Your task to perform on an android device: open app "Life360: Find Family & Friends" Image 0: 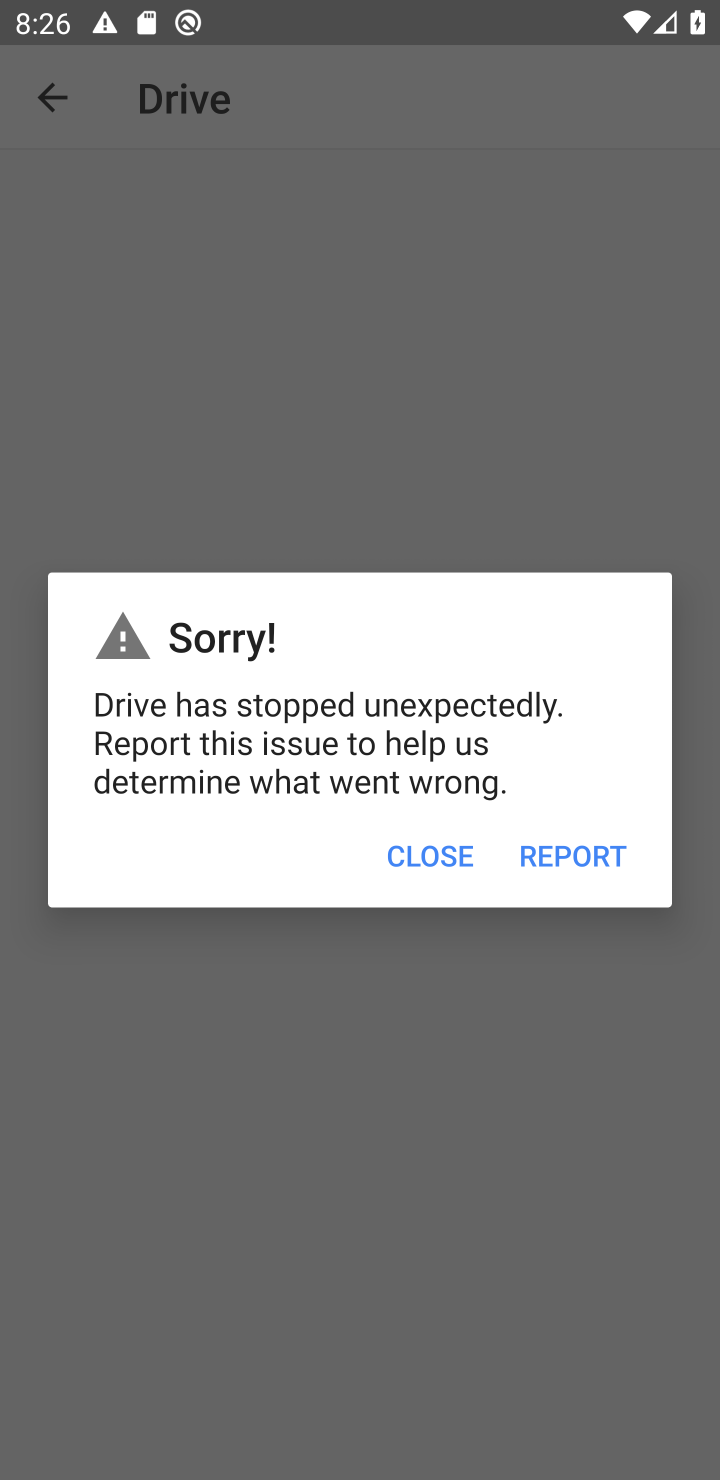
Step 0: press home button
Your task to perform on an android device: open app "Life360: Find Family & Friends" Image 1: 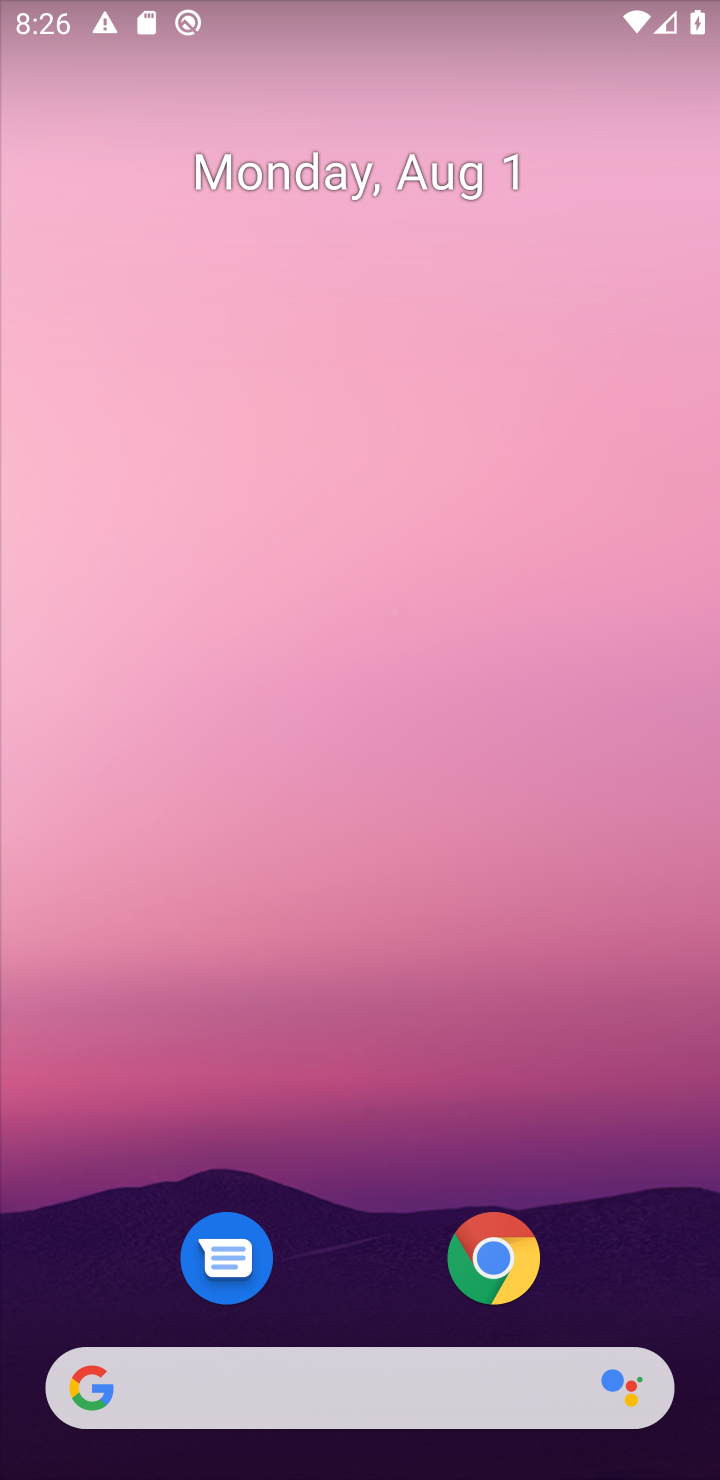
Step 1: drag from (378, 1236) to (232, 81)
Your task to perform on an android device: open app "Life360: Find Family & Friends" Image 2: 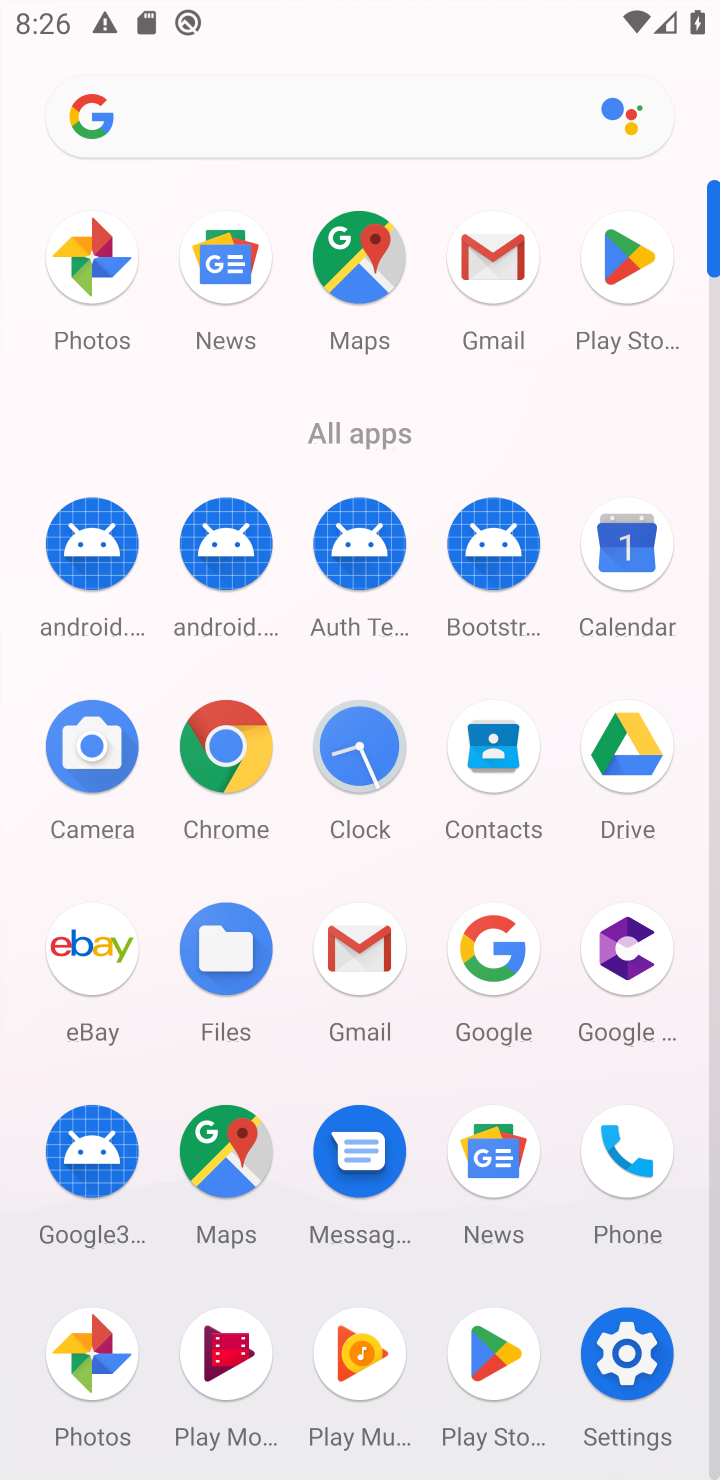
Step 2: click (479, 1353)
Your task to perform on an android device: open app "Life360: Find Family & Friends" Image 3: 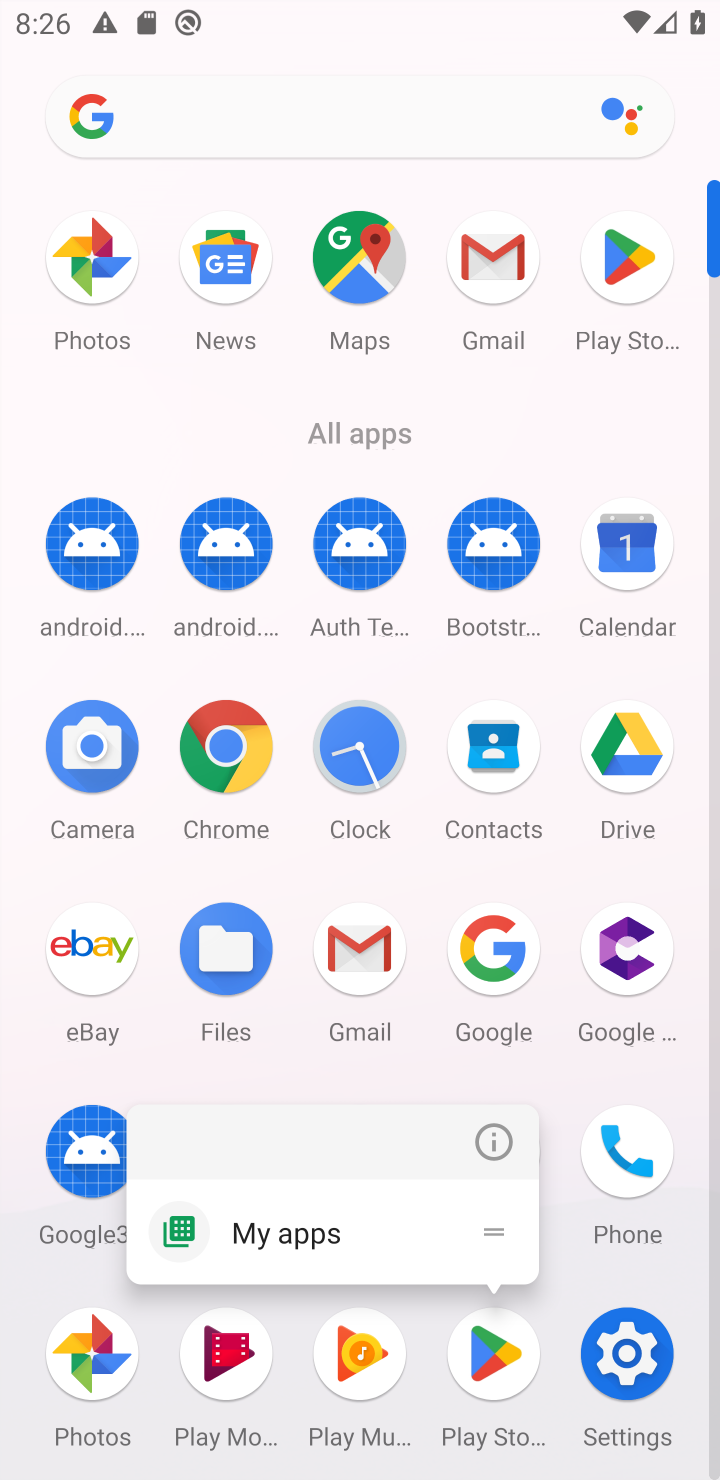
Step 3: click (477, 1362)
Your task to perform on an android device: open app "Life360: Find Family & Friends" Image 4: 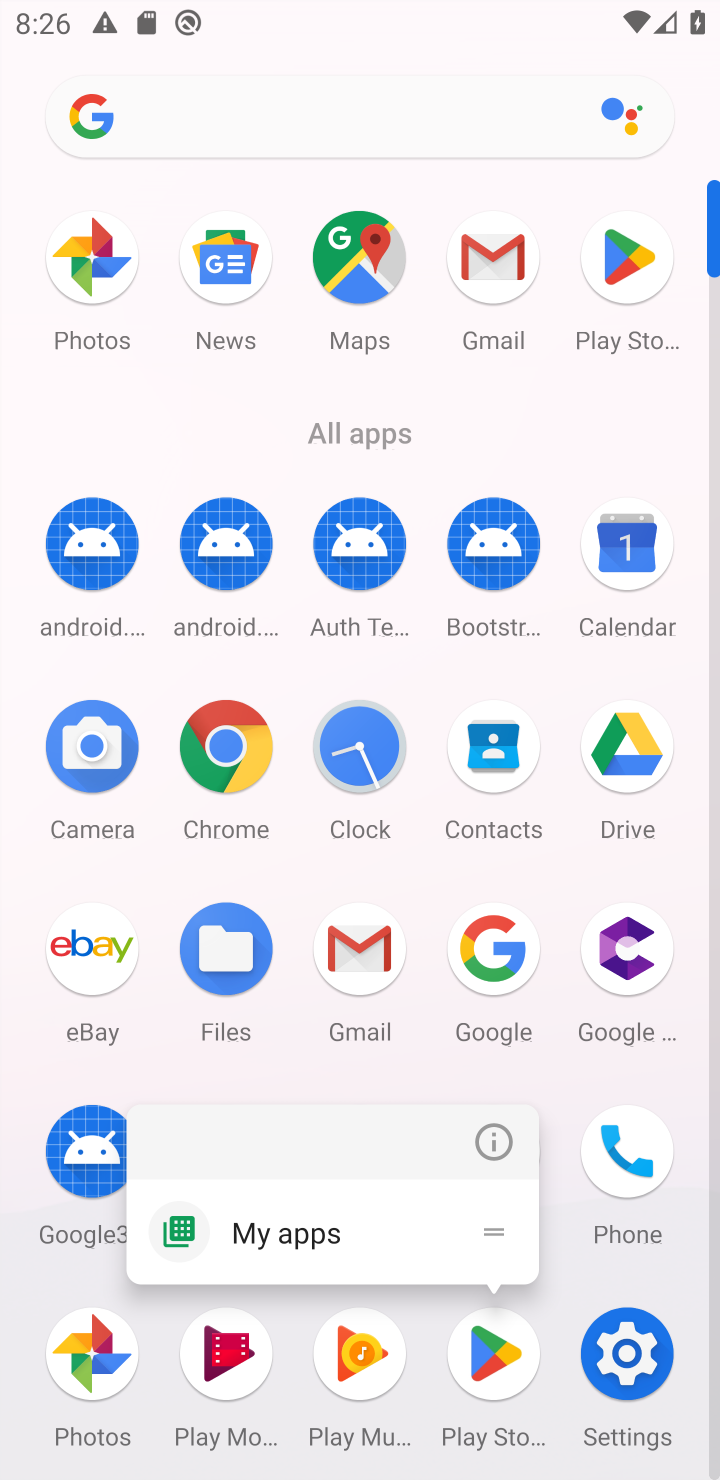
Step 4: click (477, 1362)
Your task to perform on an android device: open app "Life360: Find Family & Friends" Image 5: 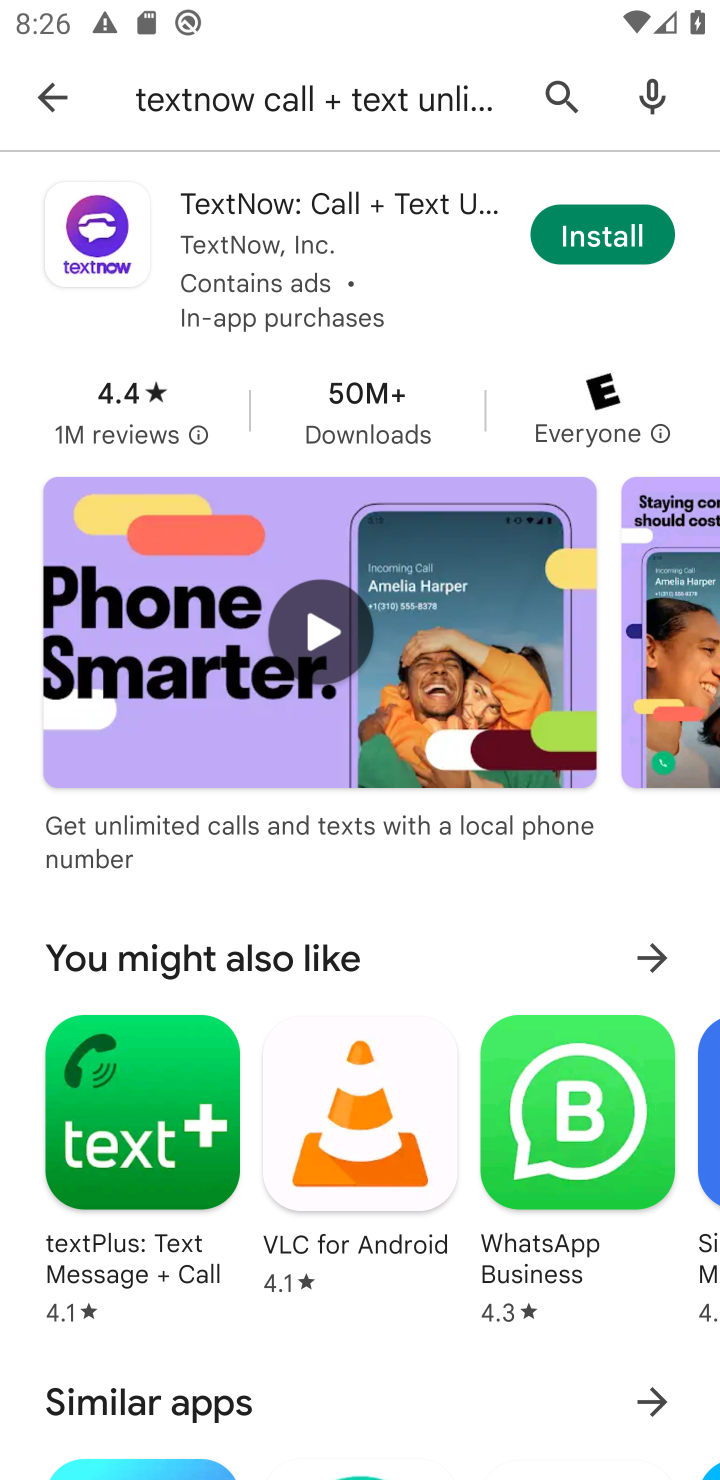
Step 5: click (477, 1362)
Your task to perform on an android device: open app "Life360: Find Family & Friends" Image 6: 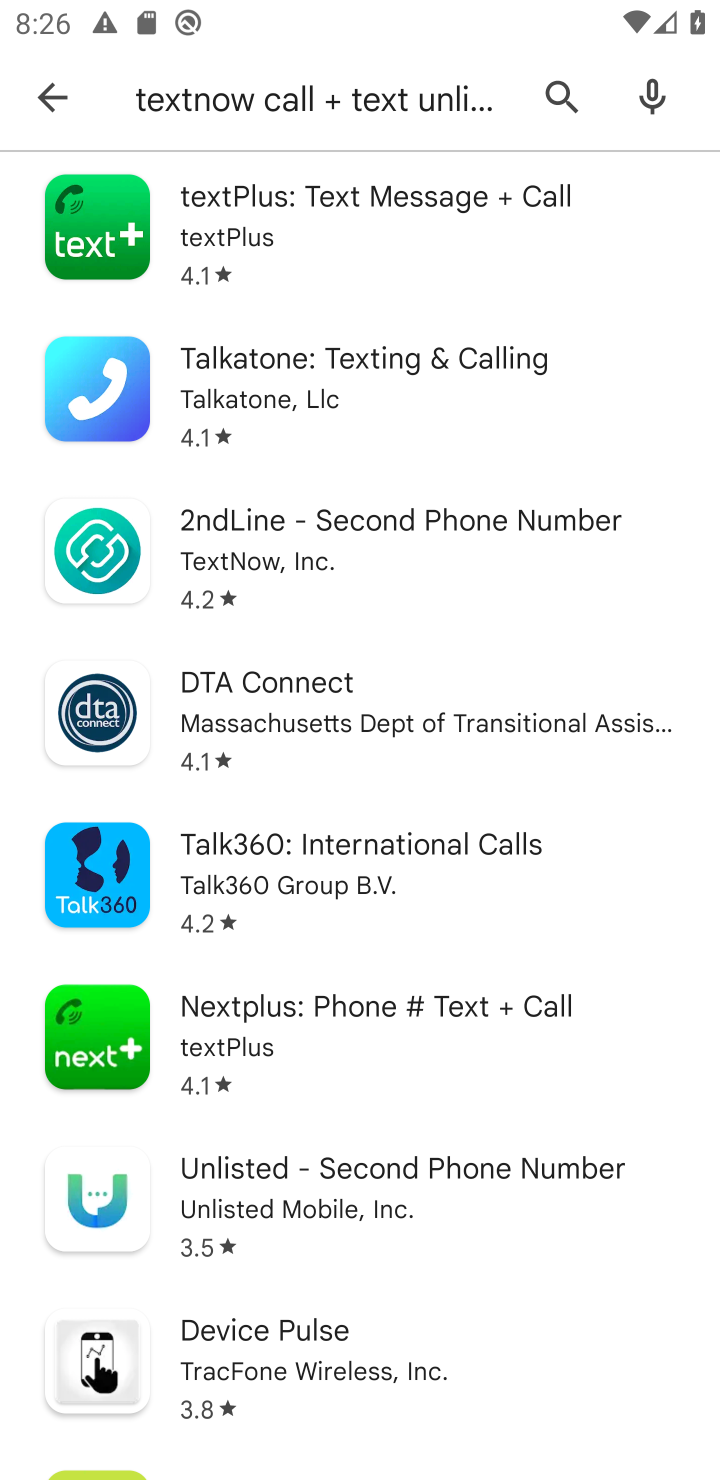
Step 6: click (544, 97)
Your task to perform on an android device: open app "Life360: Find Family & Friends" Image 7: 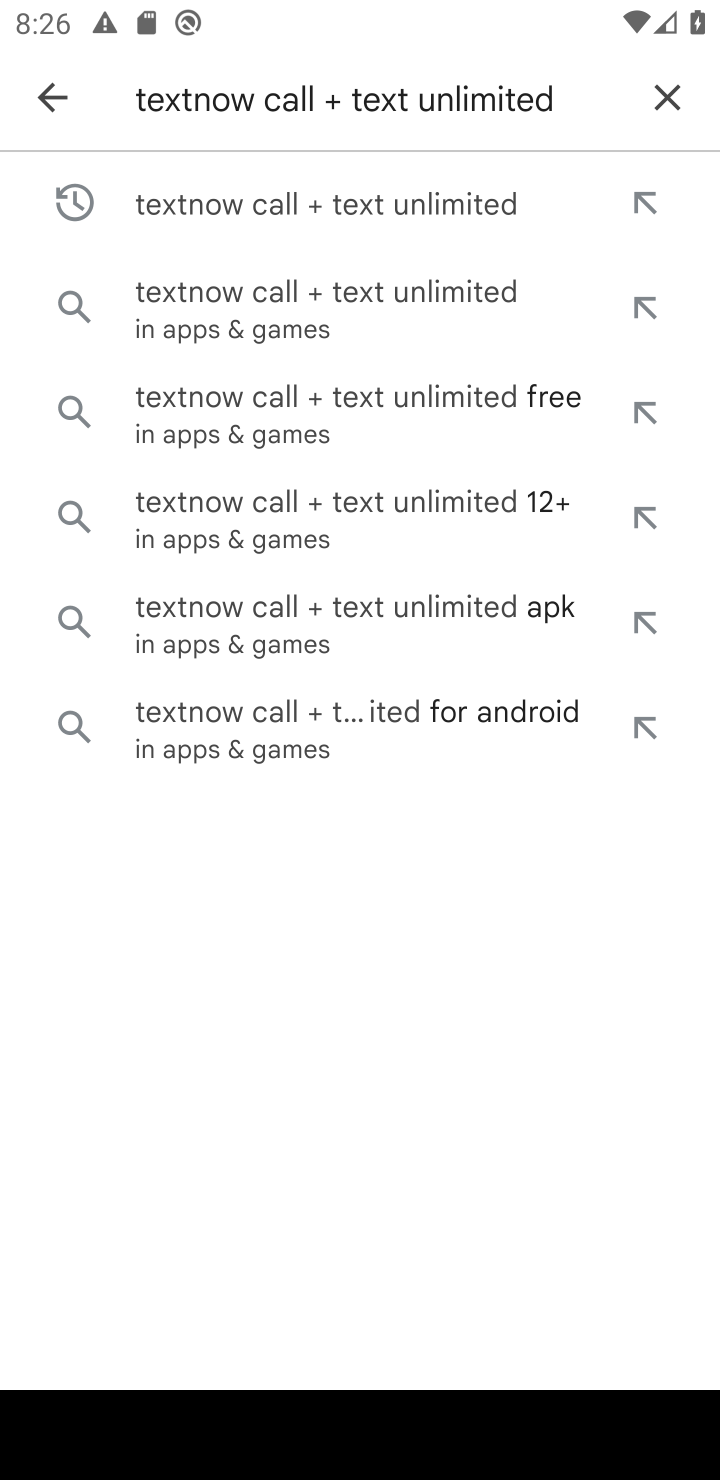
Step 7: click (665, 86)
Your task to perform on an android device: open app "Life360: Find Family & Friends" Image 8: 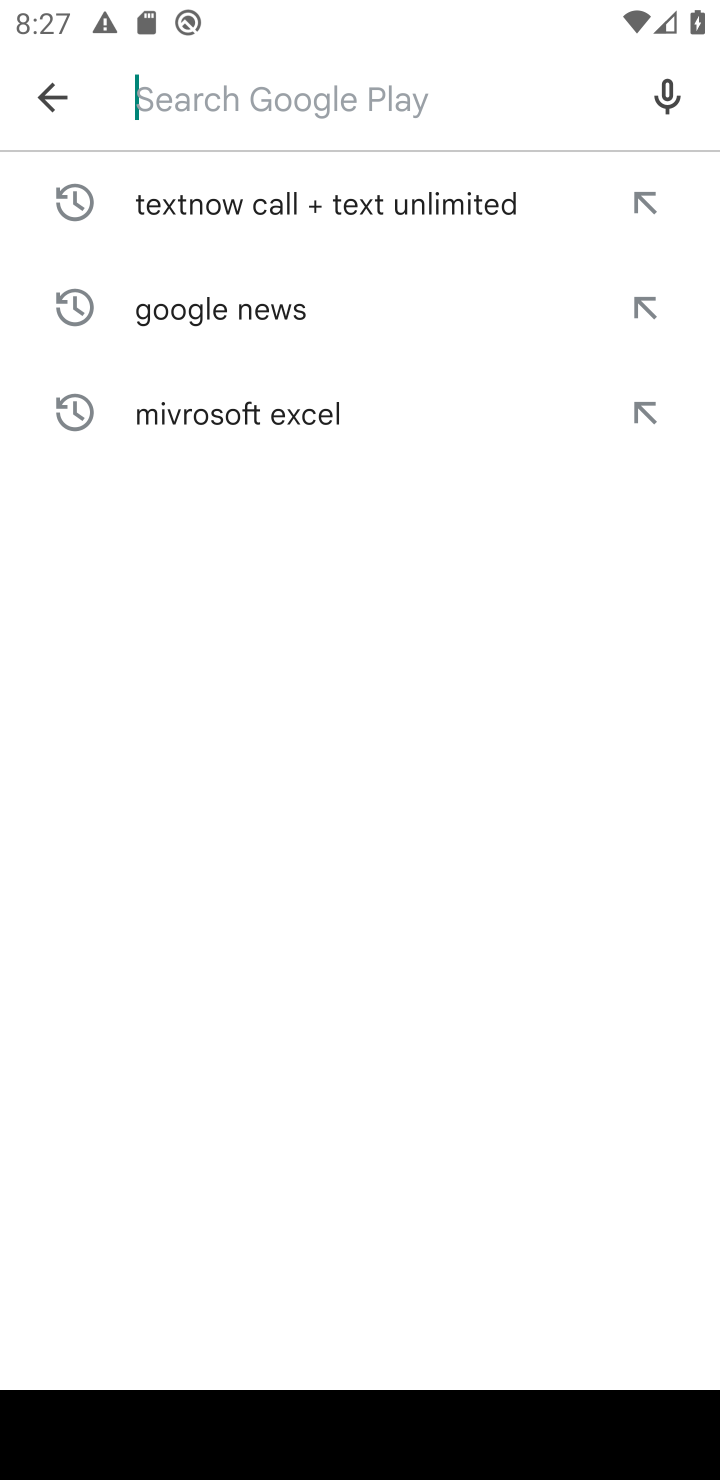
Step 8: type "Life360: Find Family & Friends""
Your task to perform on an android device: open app "Life360: Find Family & Friends" Image 9: 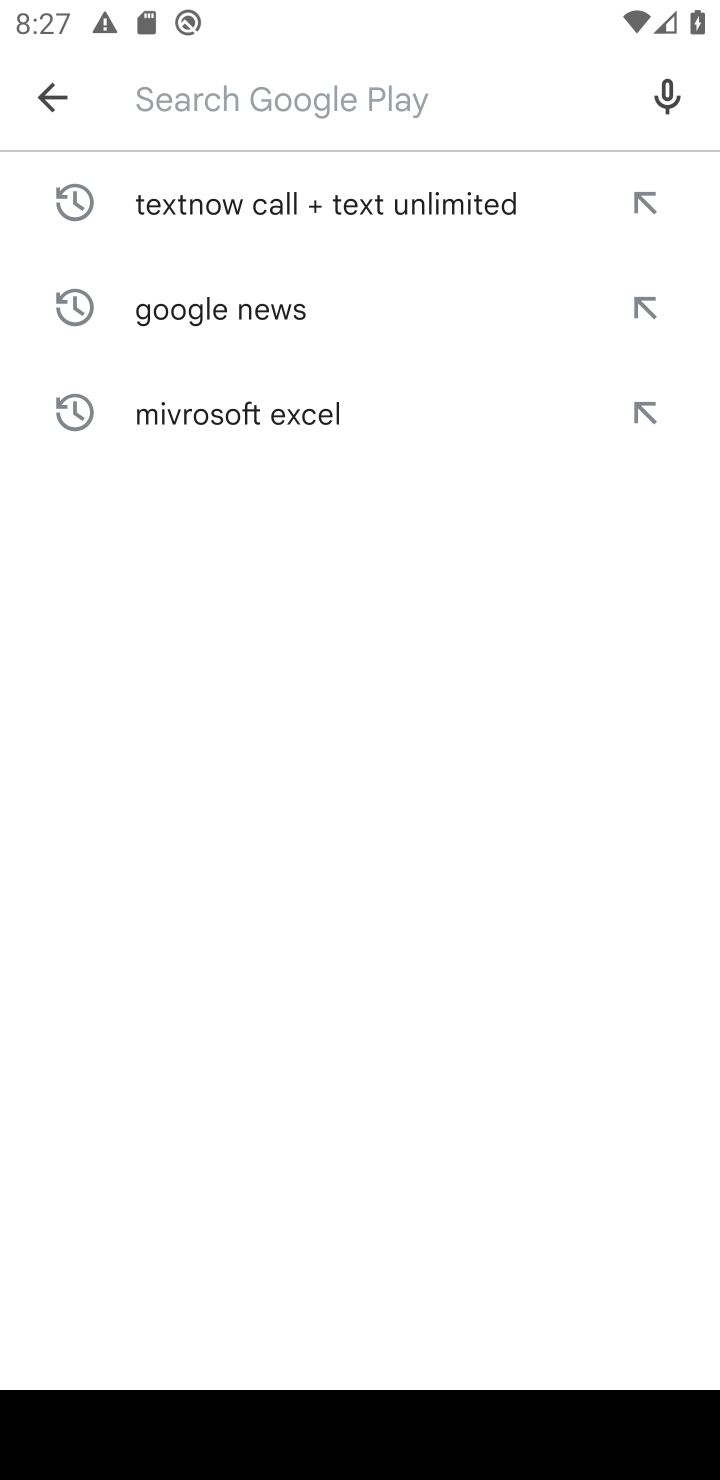
Step 9: type ""
Your task to perform on an android device: open app "Life360: Find Family & Friends" Image 10: 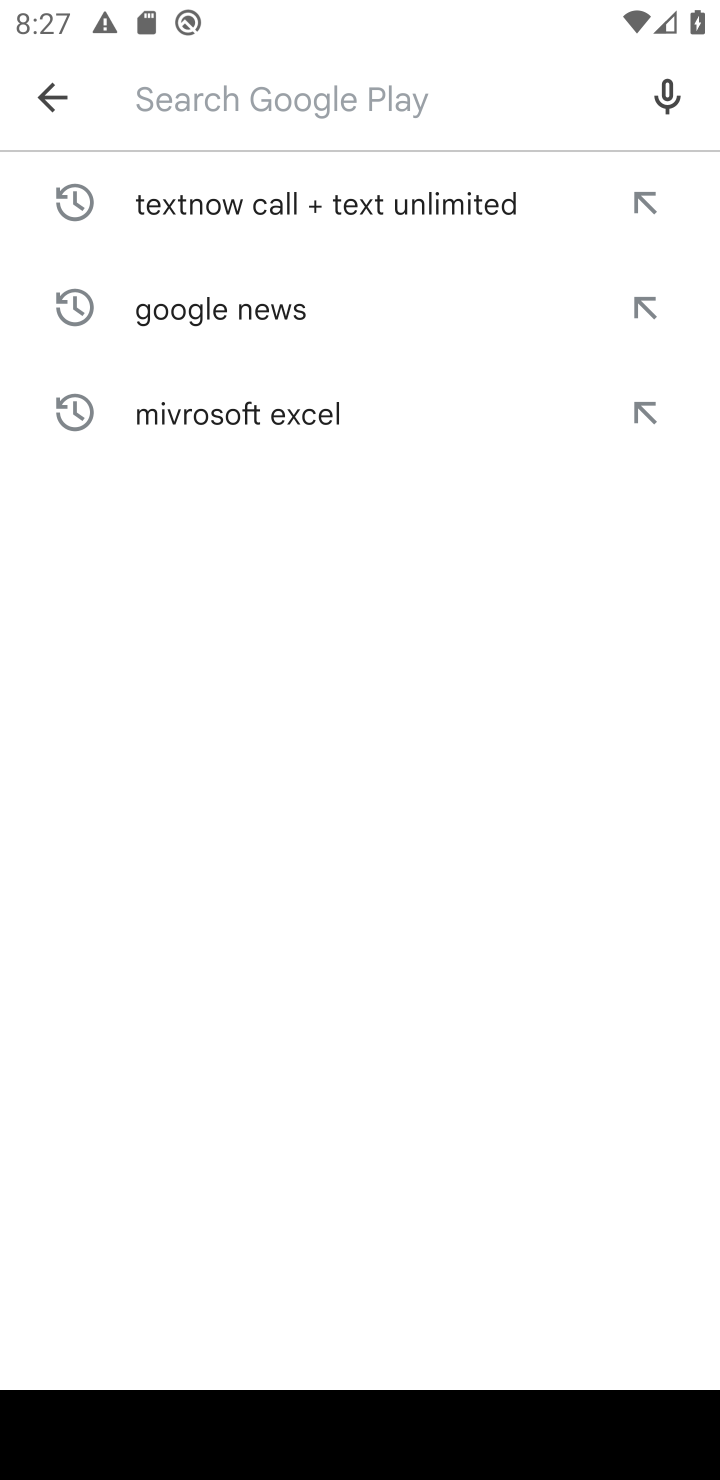
Step 10: click (476, 205)
Your task to perform on an android device: open app "Life360: Find Family & Friends" Image 11: 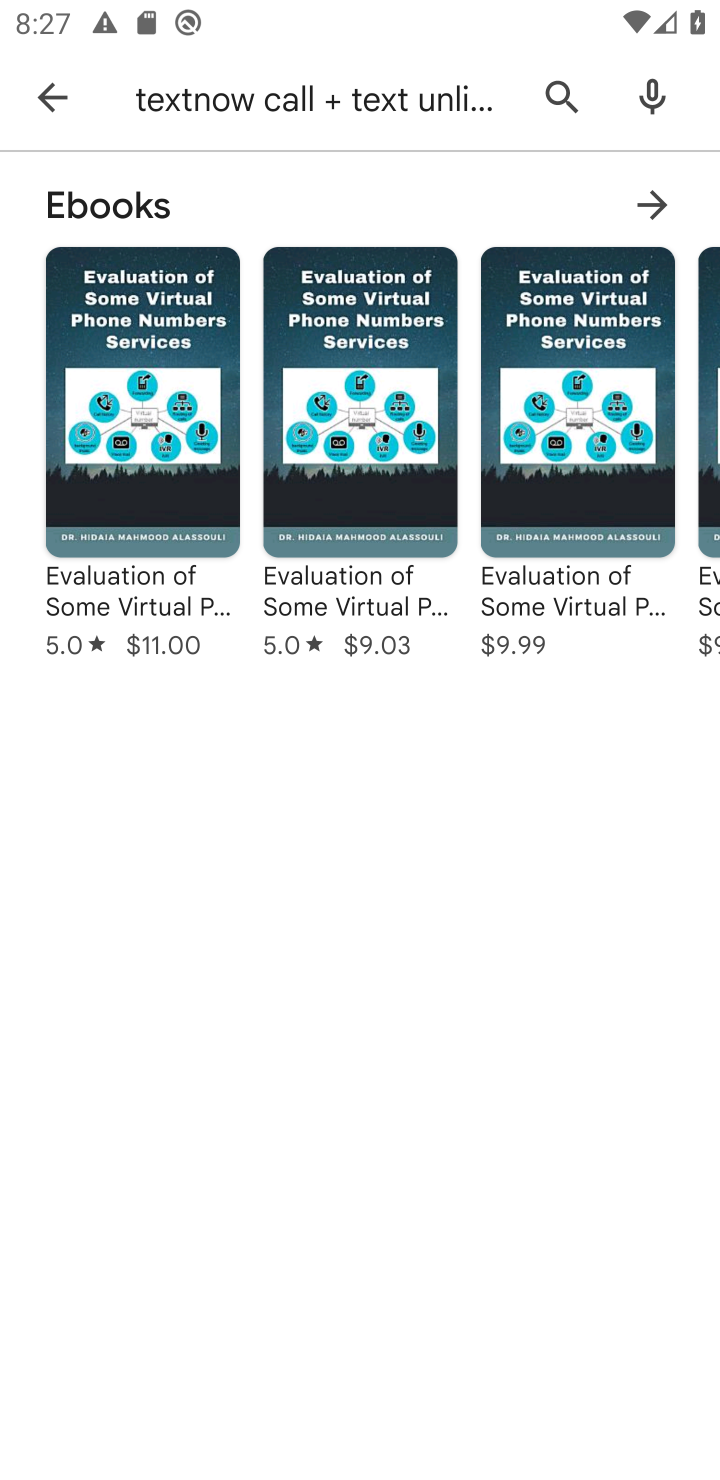
Step 11: click (32, 95)
Your task to perform on an android device: open app "Life360: Find Family & Friends" Image 12: 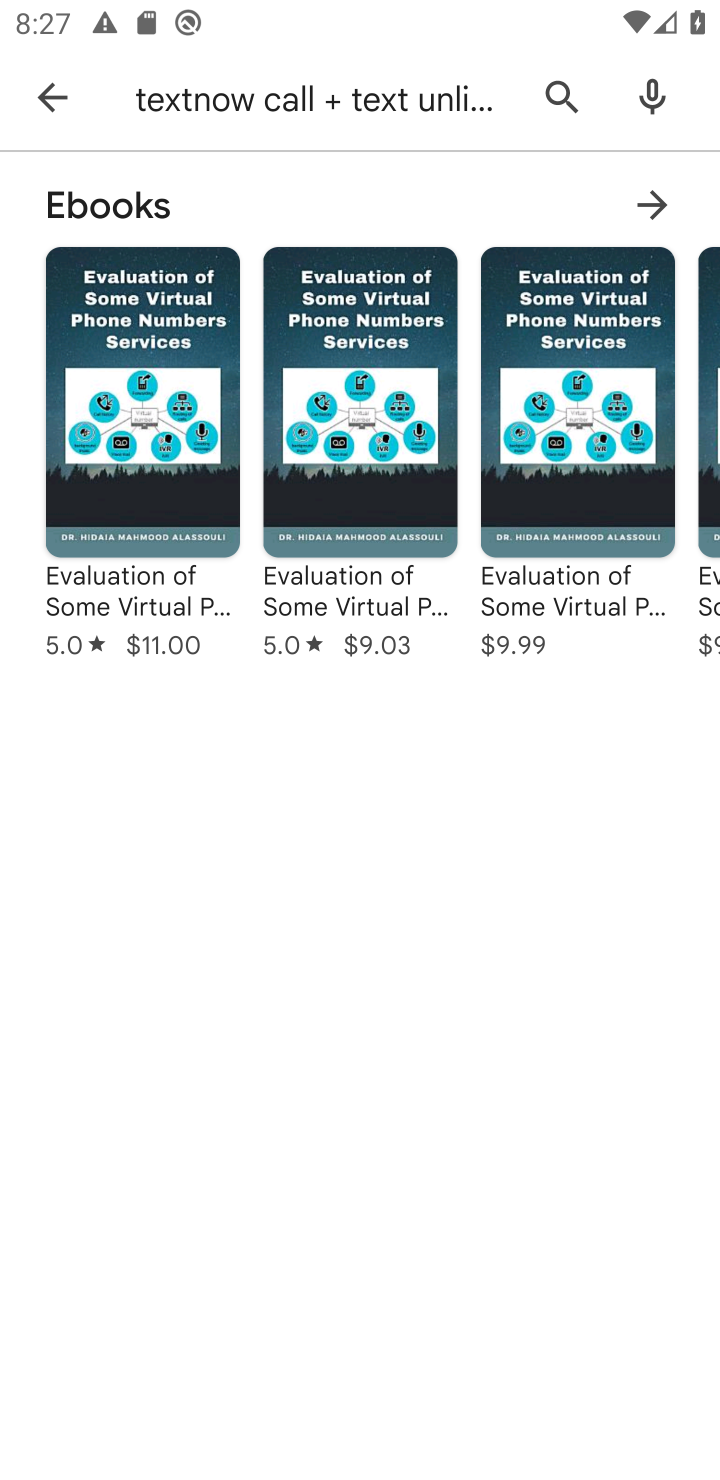
Step 12: click (37, 102)
Your task to perform on an android device: open app "Life360: Find Family & Friends" Image 13: 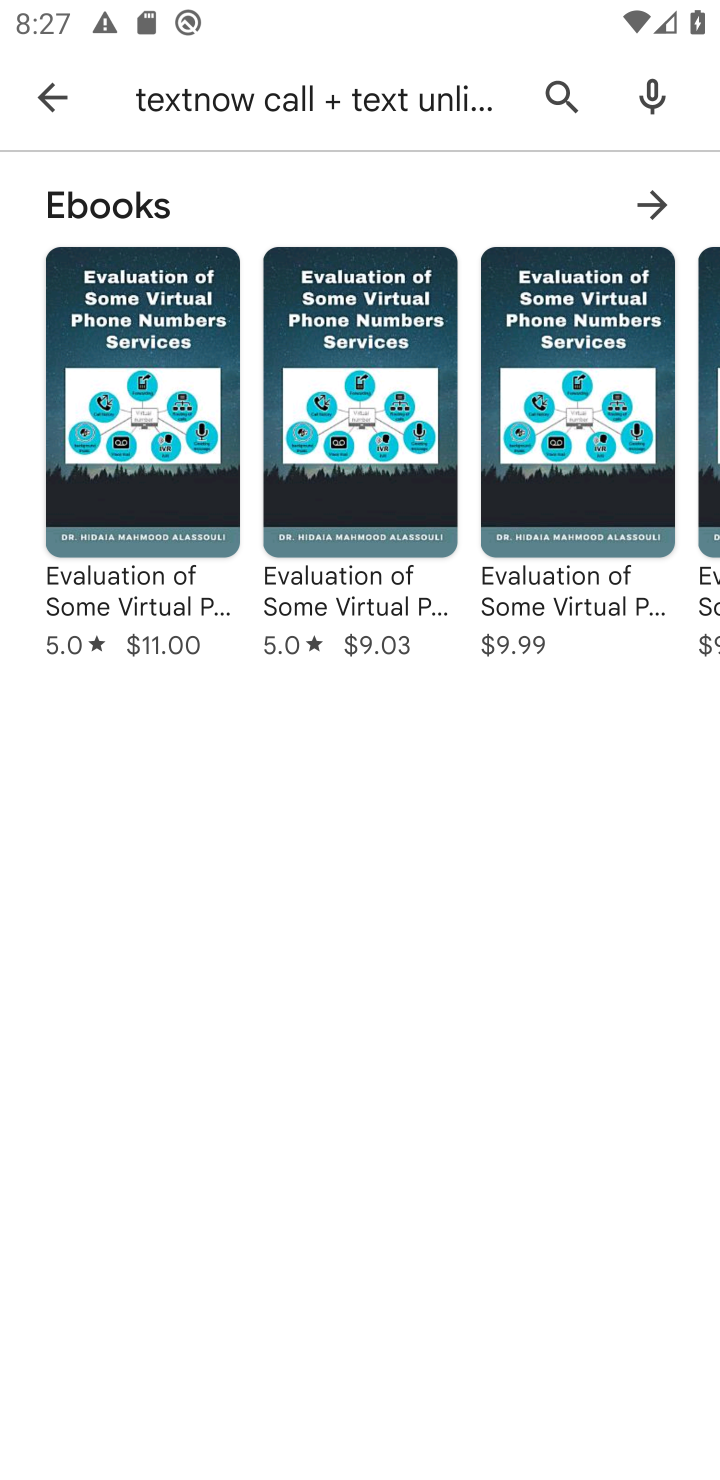
Step 13: click (39, 112)
Your task to perform on an android device: open app "Life360: Find Family & Friends" Image 14: 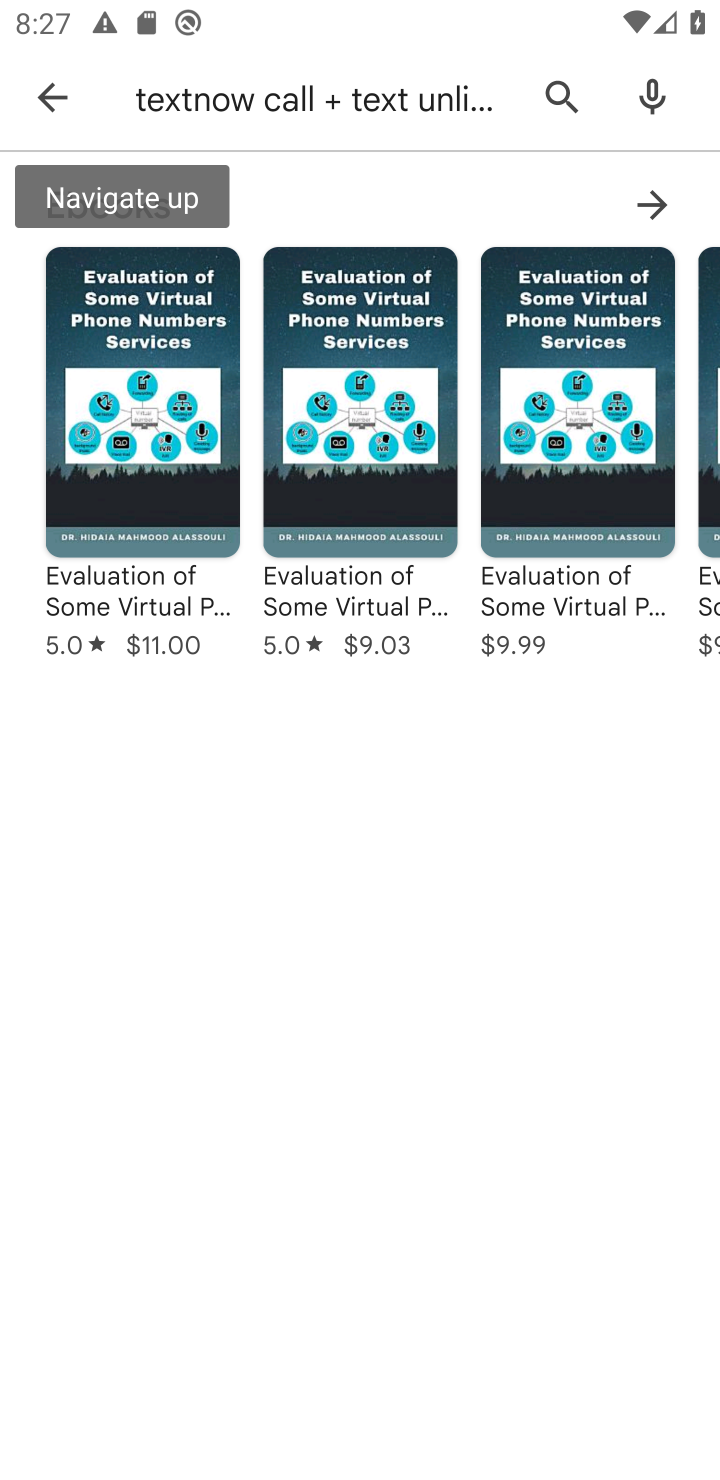
Step 14: click (45, 98)
Your task to perform on an android device: open app "Life360: Find Family & Friends" Image 15: 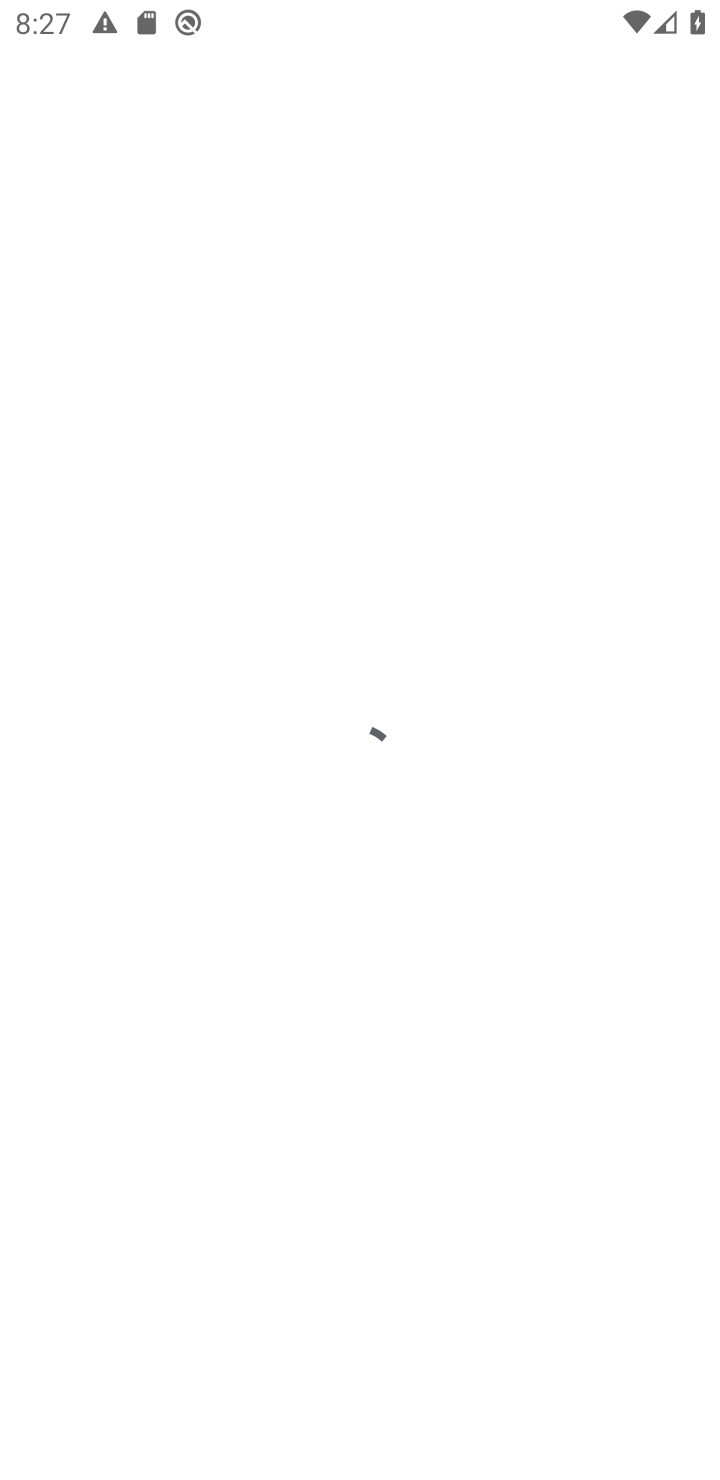
Step 15: click (563, 98)
Your task to perform on an android device: open app "Life360: Find Family & Friends" Image 16: 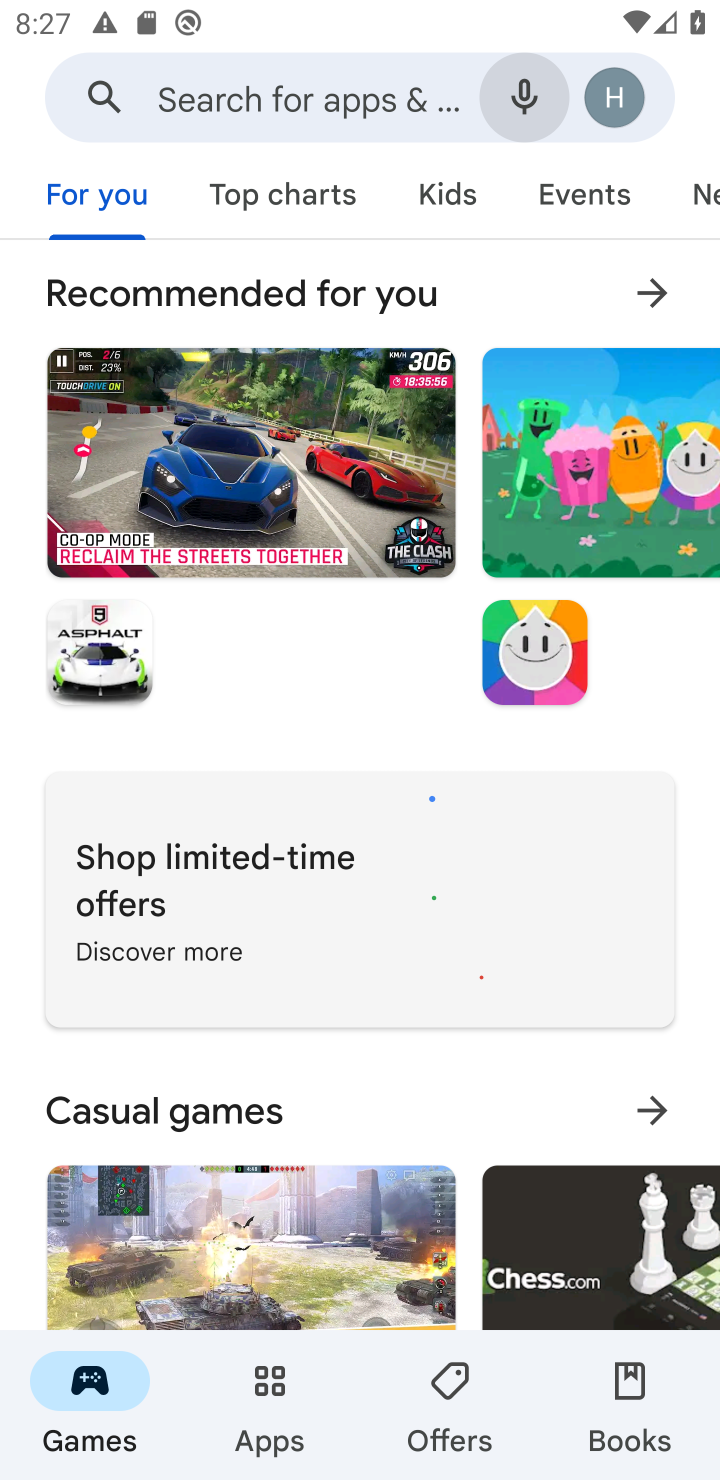
Step 16: click (220, 89)
Your task to perform on an android device: open app "Life360: Find Family & Friends" Image 17: 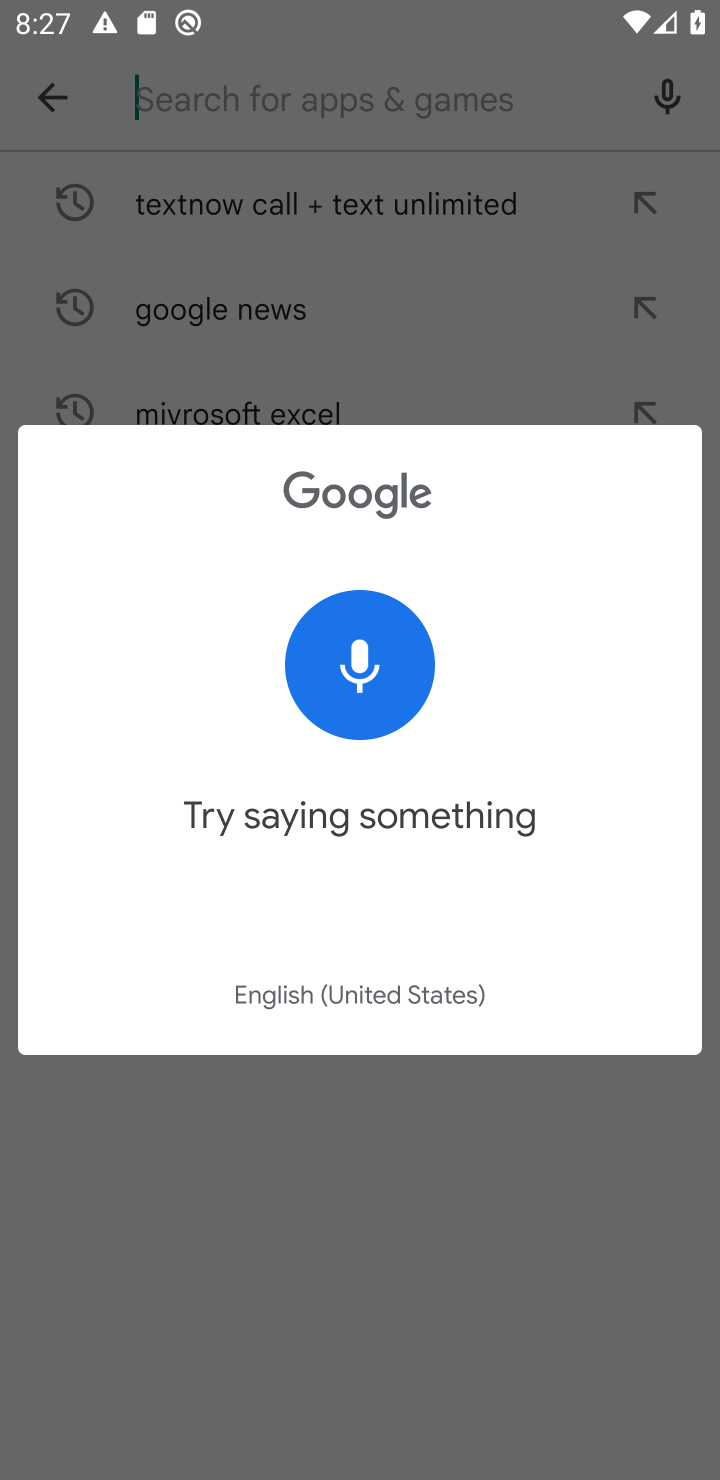
Step 17: click (65, 99)
Your task to perform on an android device: open app "Life360: Find Family & Friends" Image 18: 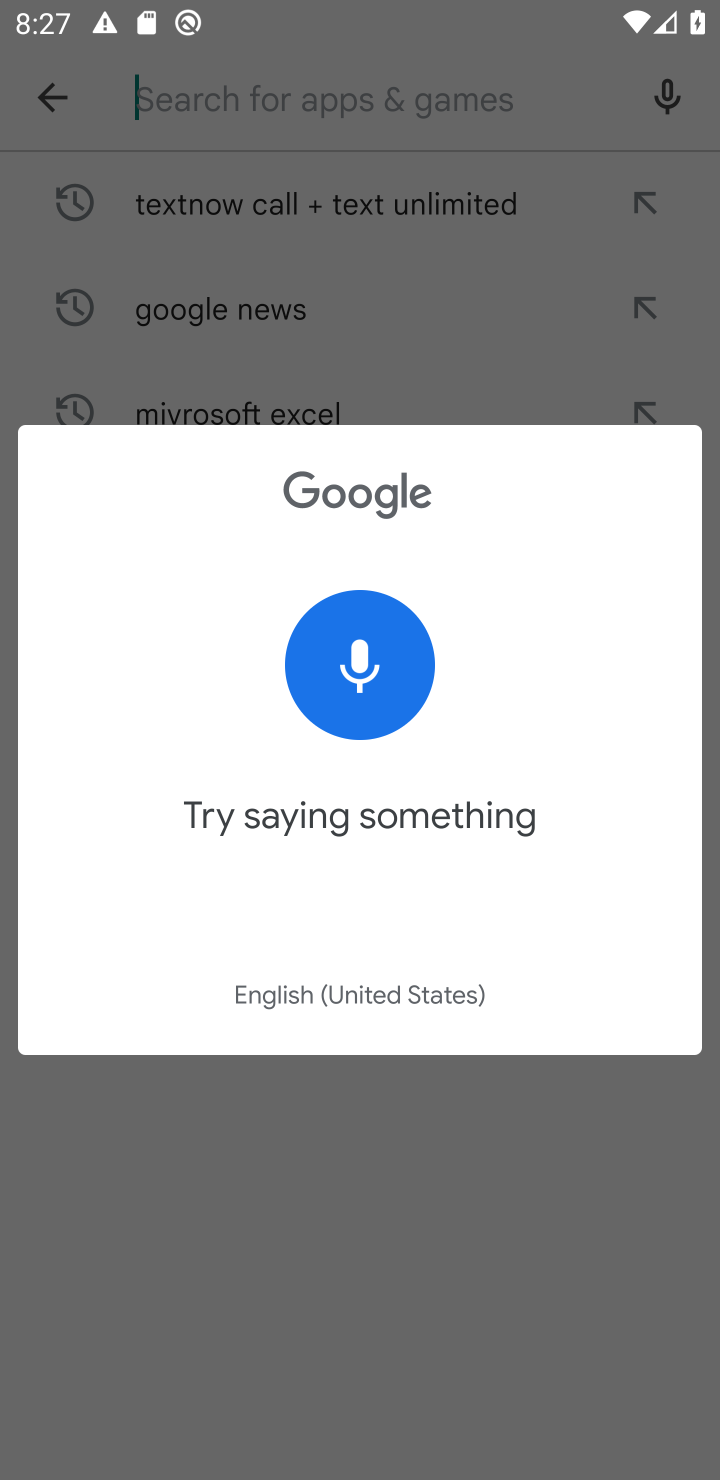
Step 18: click (185, 95)
Your task to perform on an android device: open app "Life360: Find Family & Friends" Image 19: 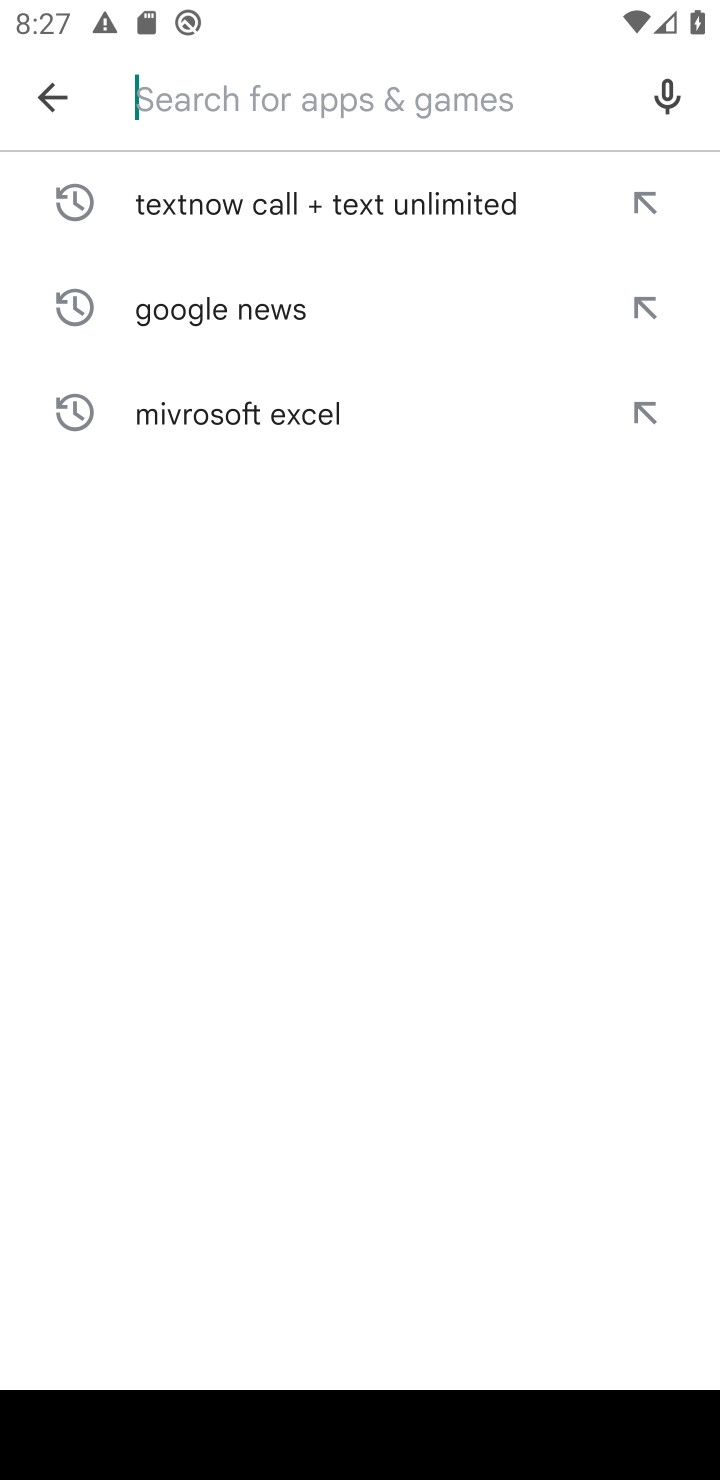
Step 19: type ""Life360: Find Family & Friends""
Your task to perform on an android device: open app "Life360: Find Family & Friends" Image 20: 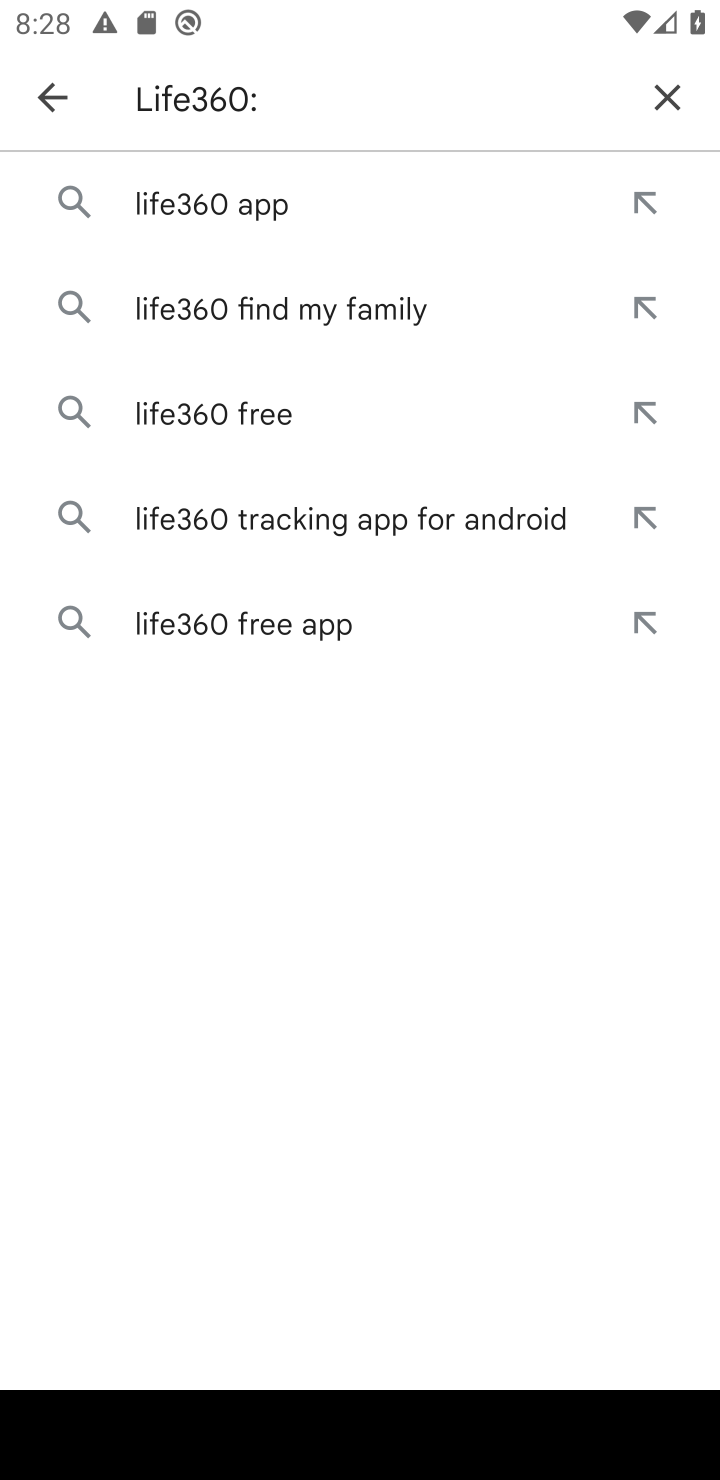
Step 20: click (239, 191)
Your task to perform on an android device: open app "Life360: Find Family & Friends" Image 21: 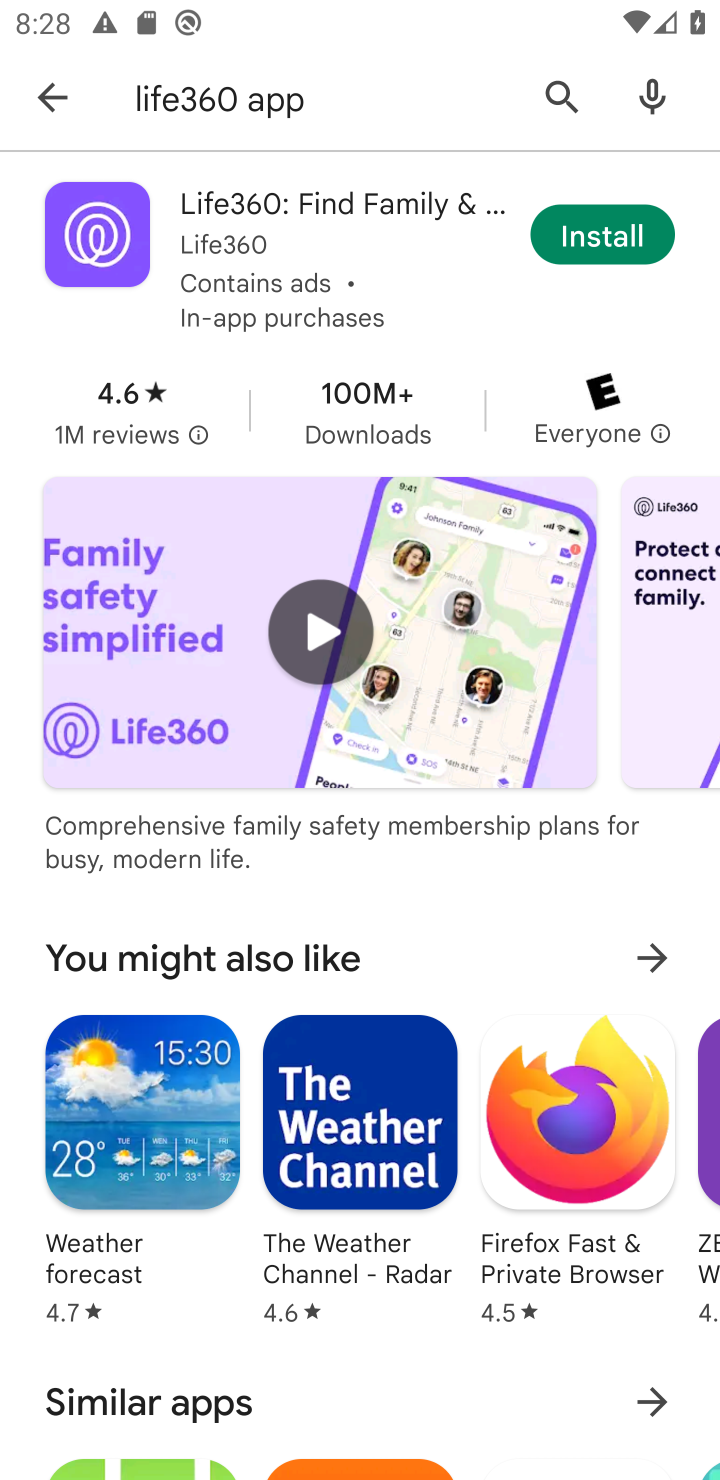
Step 21: task complete